Your task to perform on an android device: open device folders in google photos Image 0: 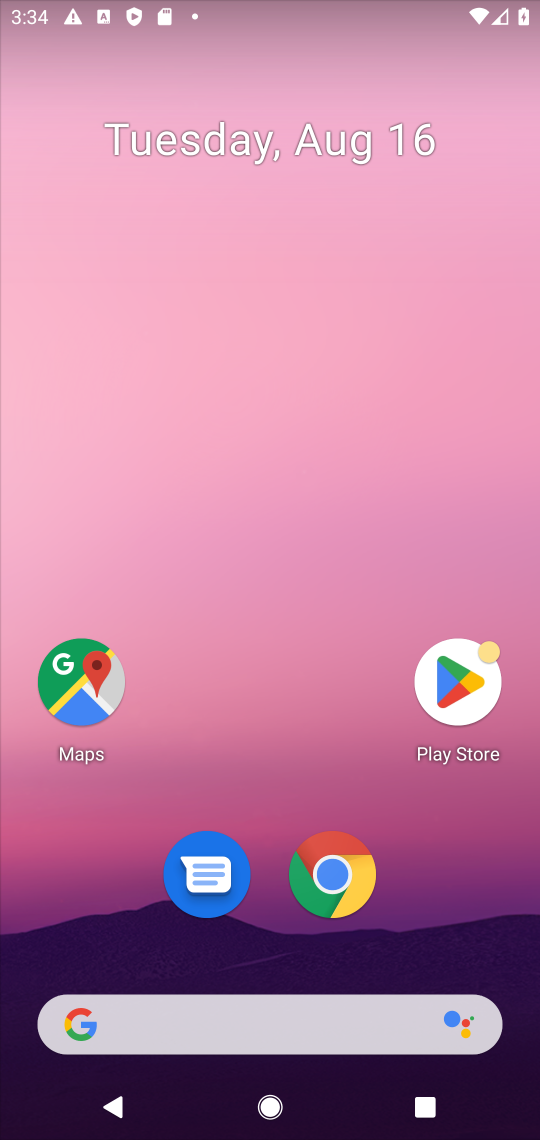
Step 0: drag from (248, 952) to (55, 239)
Your task to perform on an android device: open device folders in google photos Image 1: 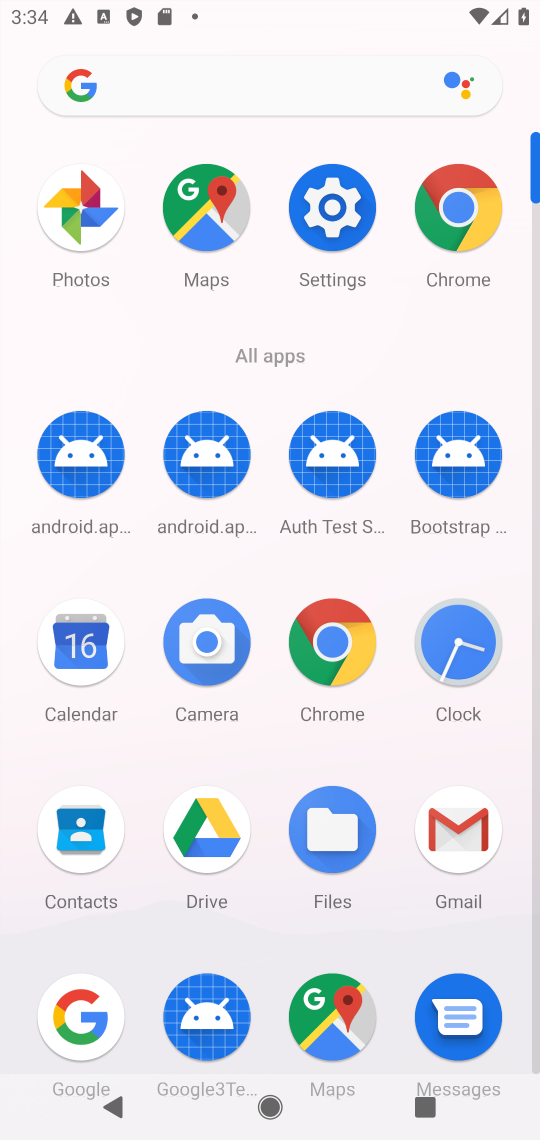
Step 1: click (81, 234)
Your task to perform on an android device: open device folders in google photos Image 2: 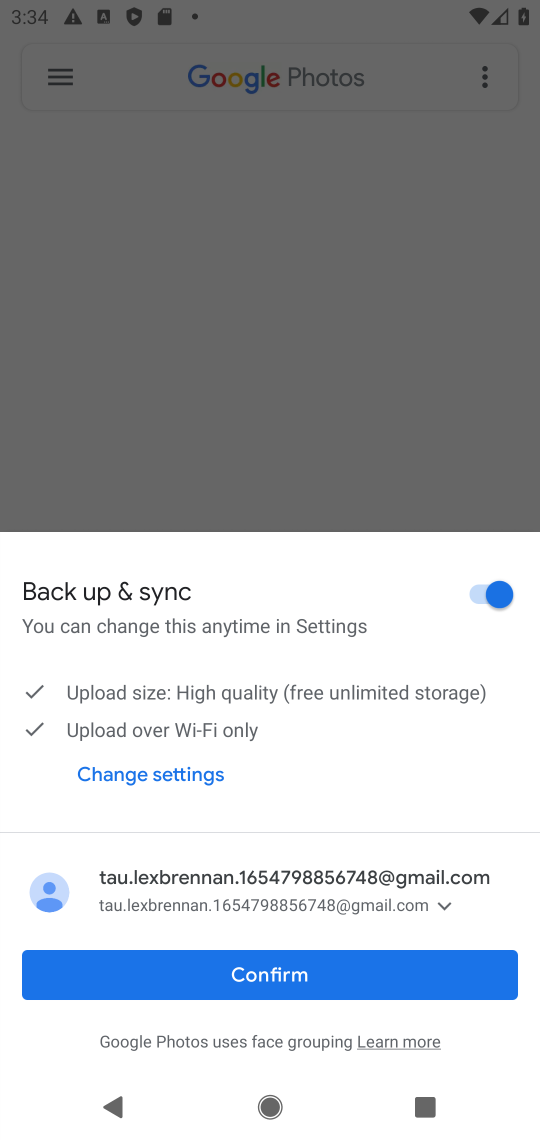
Step 2: click (290, 443)
Your task to perform on an android device: open device folders in google photos Image 3: 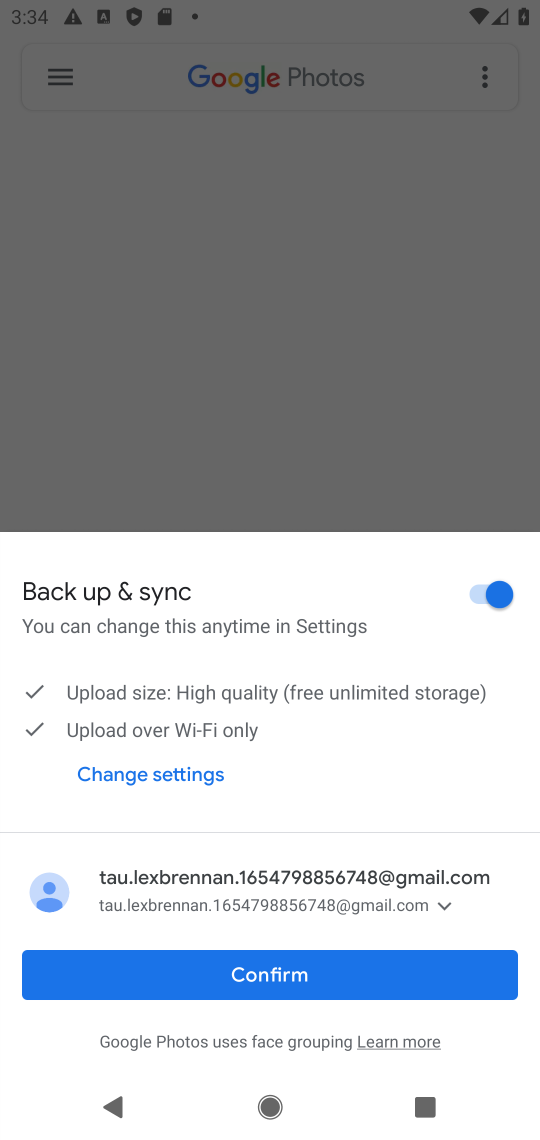
Step 3: click (377, 995)
Your task to perform on an android device: open device folders in google photos Image 4: 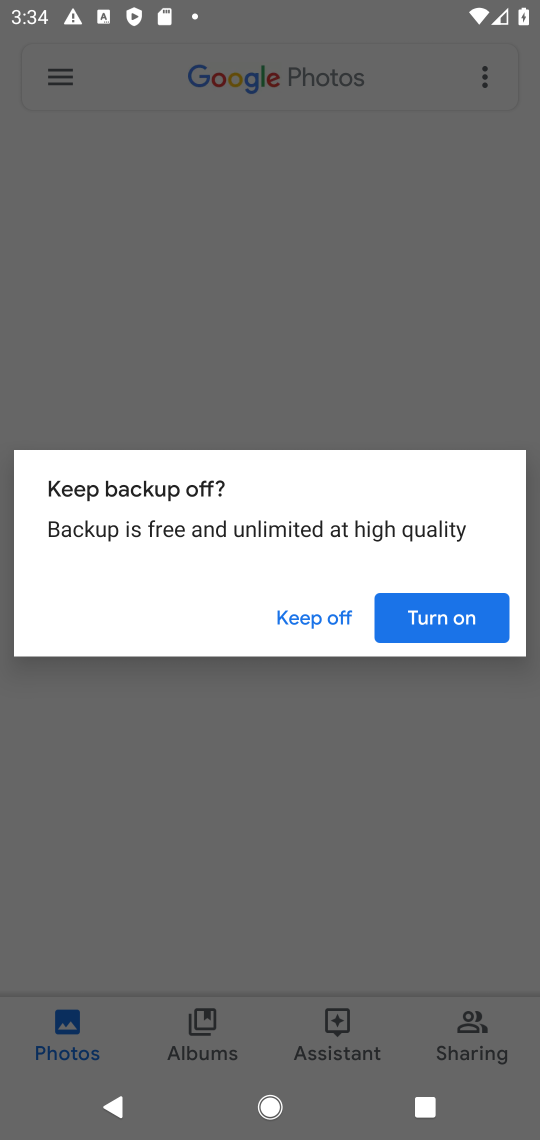
Step 4: click (292, 629)
Your task to perform on an android device: open device folders in google photos Image 5: 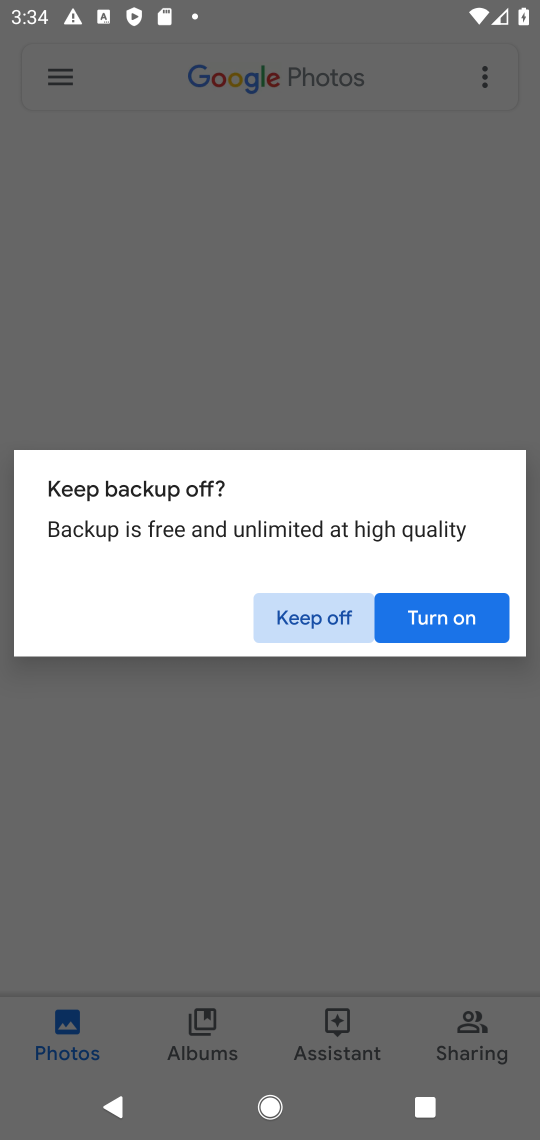
Step 5: click (300, 613)
Your task to perform on an android device: open device folders in google photos Image 6: 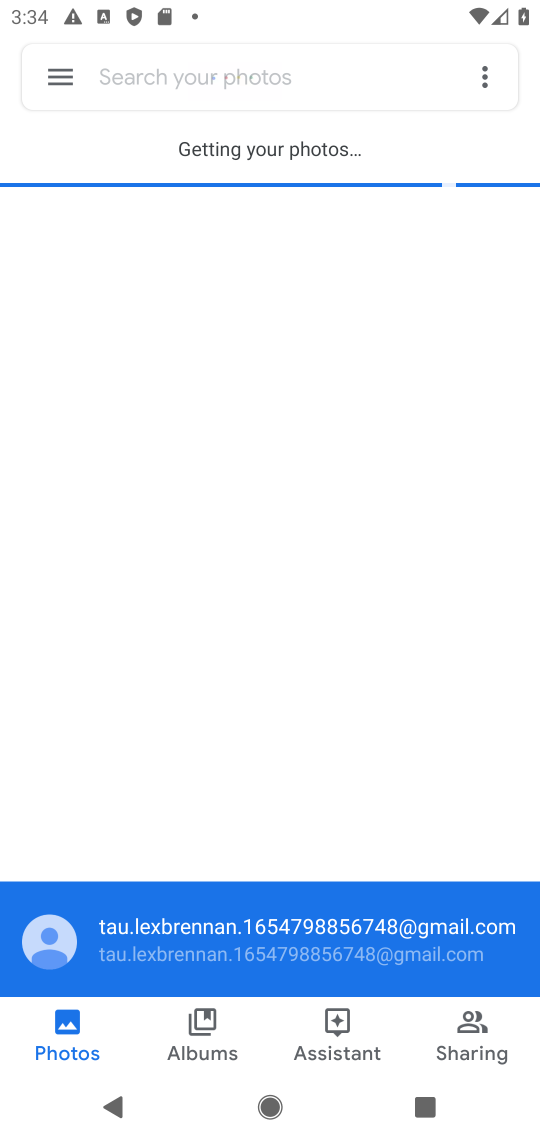
Step 6: click (206, 1036)
Your task to perform on an android device: open device folders in google photos Image 7: 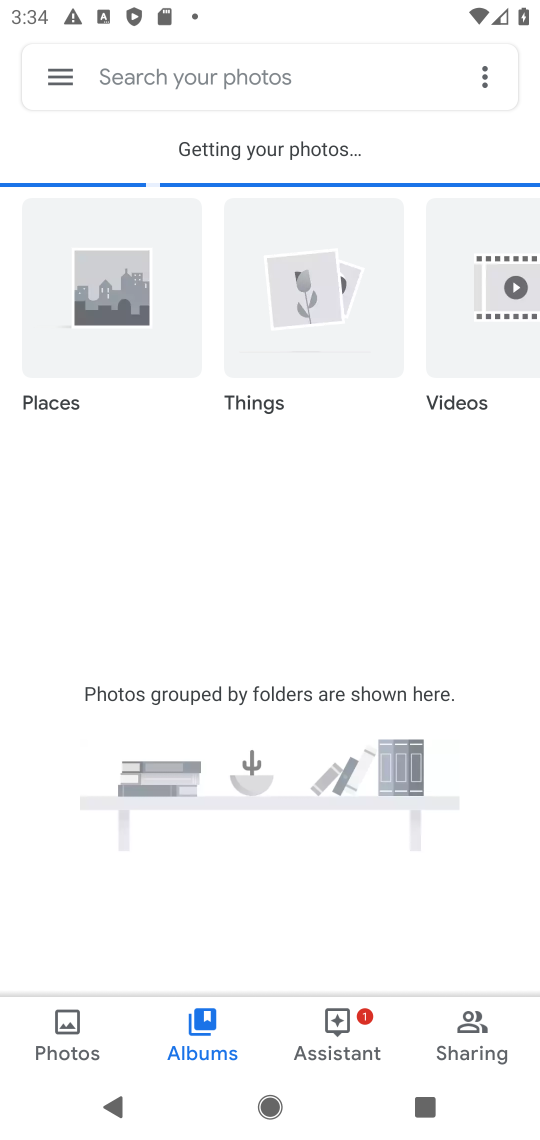
Step 7: task complete